Your task to perform on an android device: Go to settings Image 0: 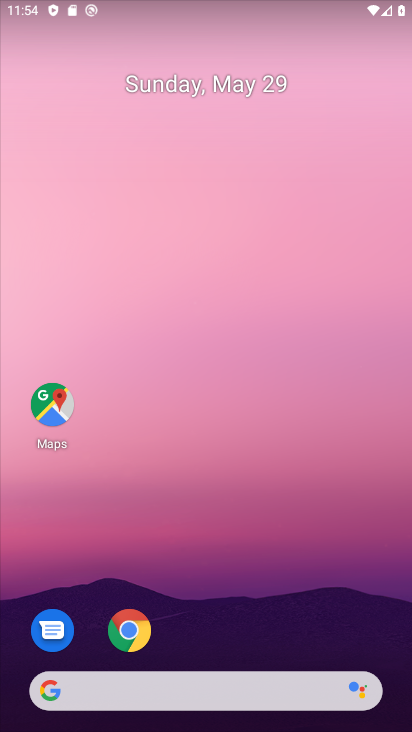
Step 0: drag from (113, 729) to (104, 52)
Your task to perform on an android device: Go to settings Image 1: 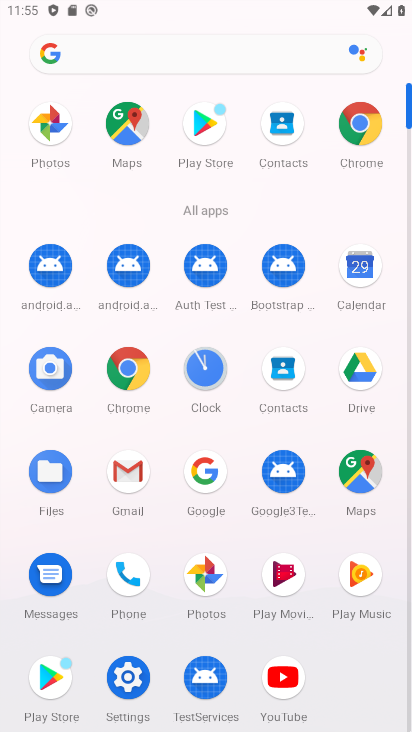
Step 1: click (134, 675)
Your task to perform on an android device: Go to settings Image 2: 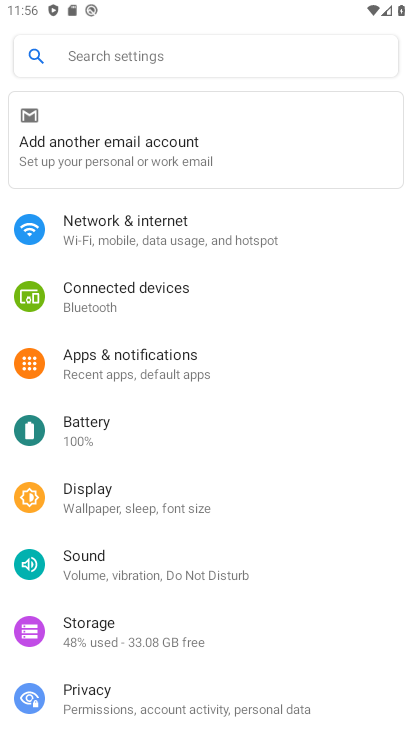
Step 2: task complete